Your task to perform on an android device: Show me the alarms in the clock app Image 0: 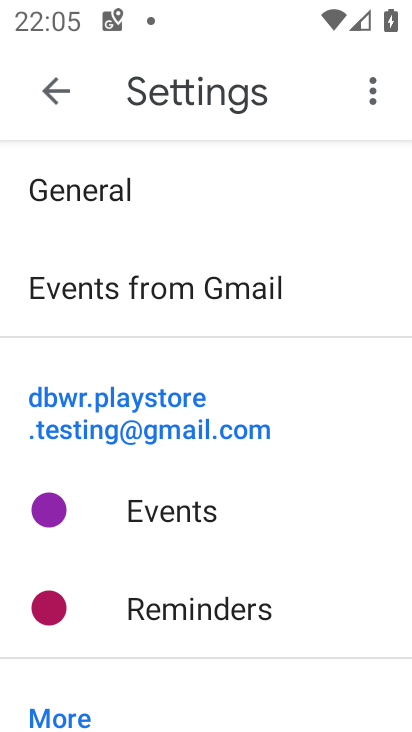
Step 0: task complete